Your task to perform on an android device: see tabs open on other devices in the chrome app Image 0: 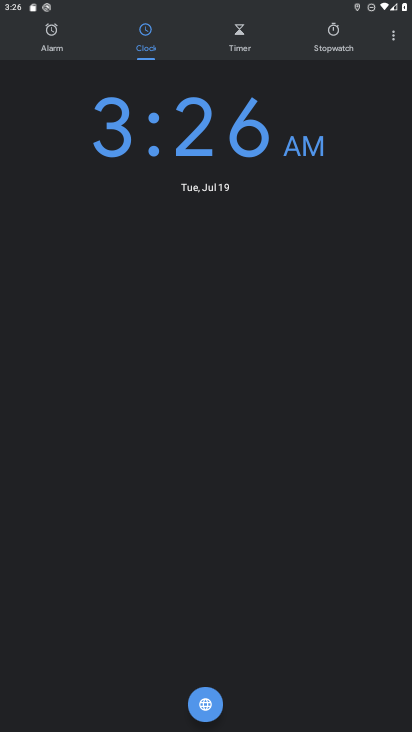
Step 0: press home button
Your task to perform on an android device: see tabs open on other devices in the chrome app Image 1: 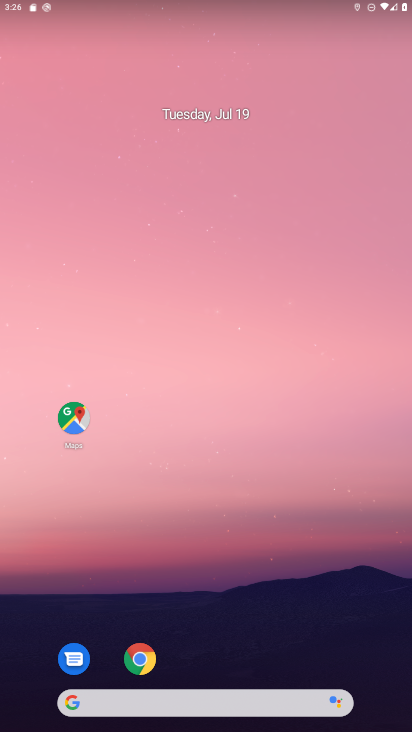
Step 1: click (140, 654)
Your task to perform on an android device: see tabs open on other devices in the chrome app Image 2: 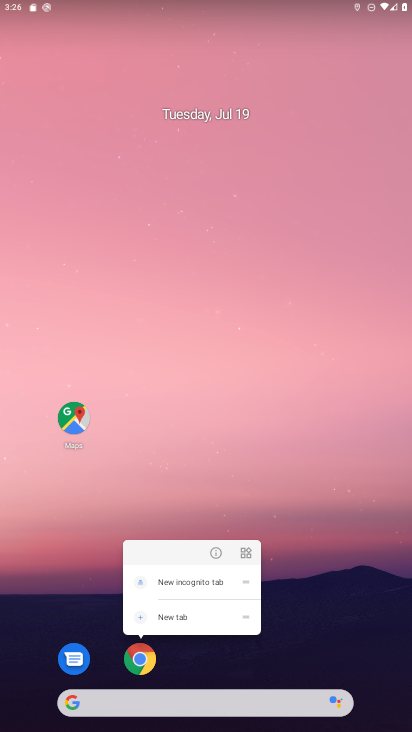
Step 2: click (144, 652)
Your task to perform on an android device: see tabs open on other devices in the chrome app Image 3: 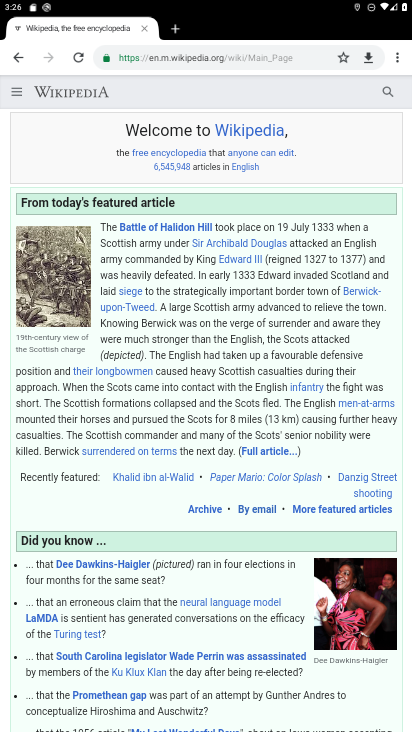
Step 3: click (398, 56)
Your task to perform on an android device: see tabs open on other devices in the chrome app Image 4: 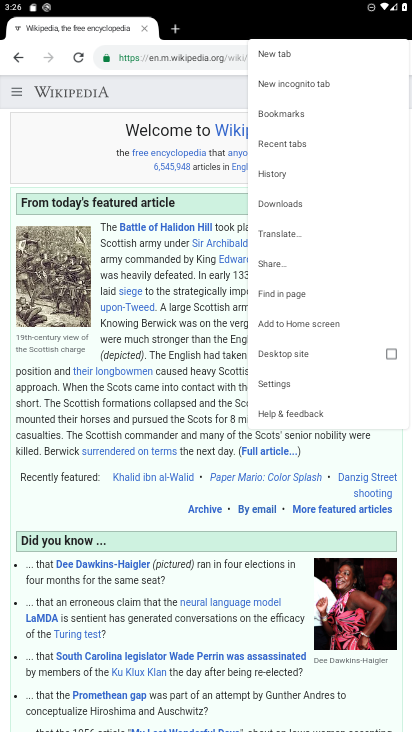
Step 4: click (281, 142)
Your task to perform on an android device: see tabs open on other devices in the chrome app Image 5: 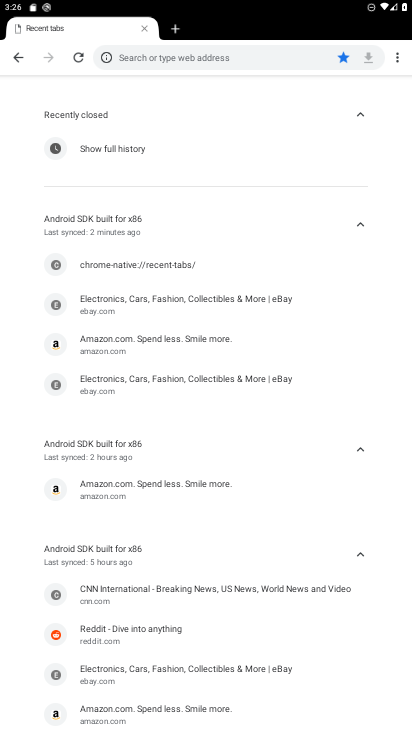
Step 5: task complete